Your task to perform on an android device: empty trash in the gmail app Image 0: 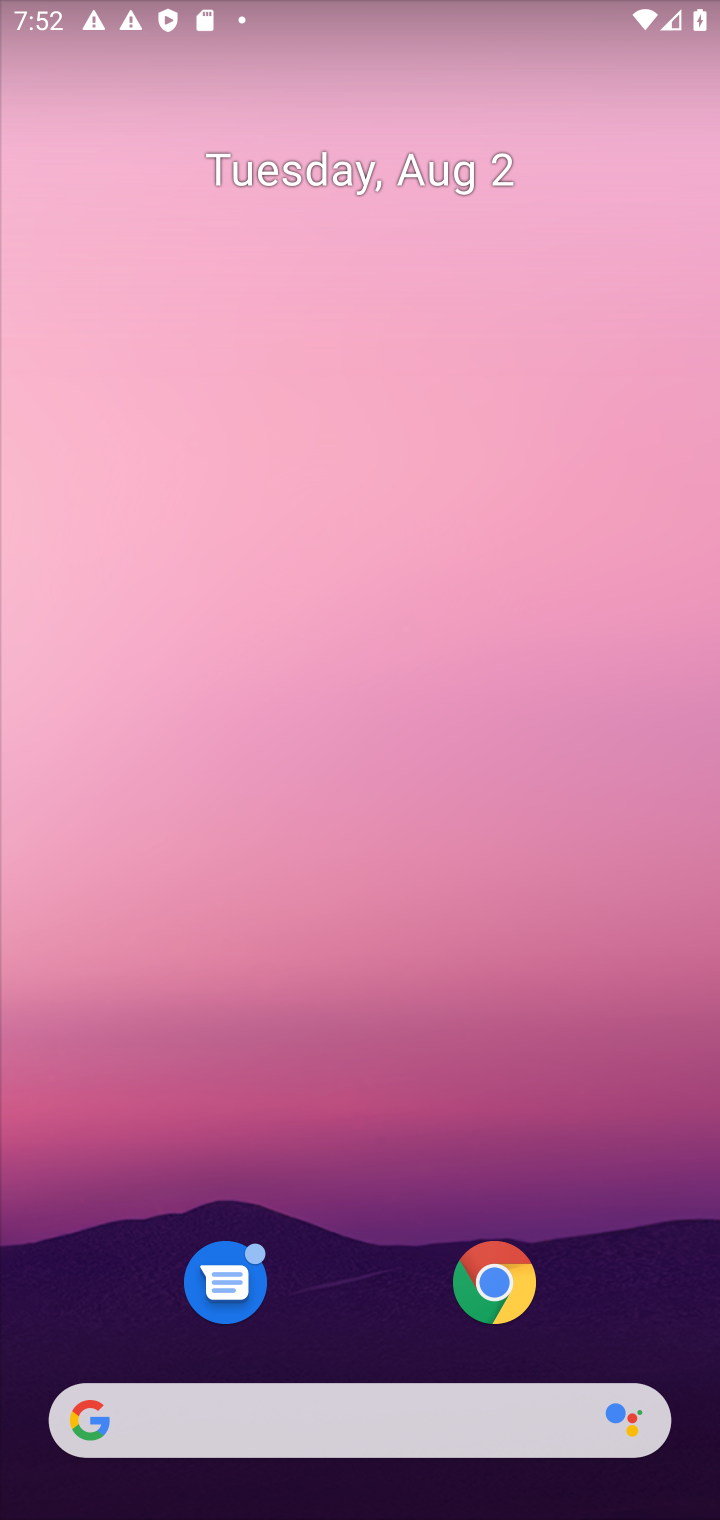
Step 0: drag from (416, 1377) to (639, 628)
Your task to perform on an android device: empty trash in the gmail app Image 1: 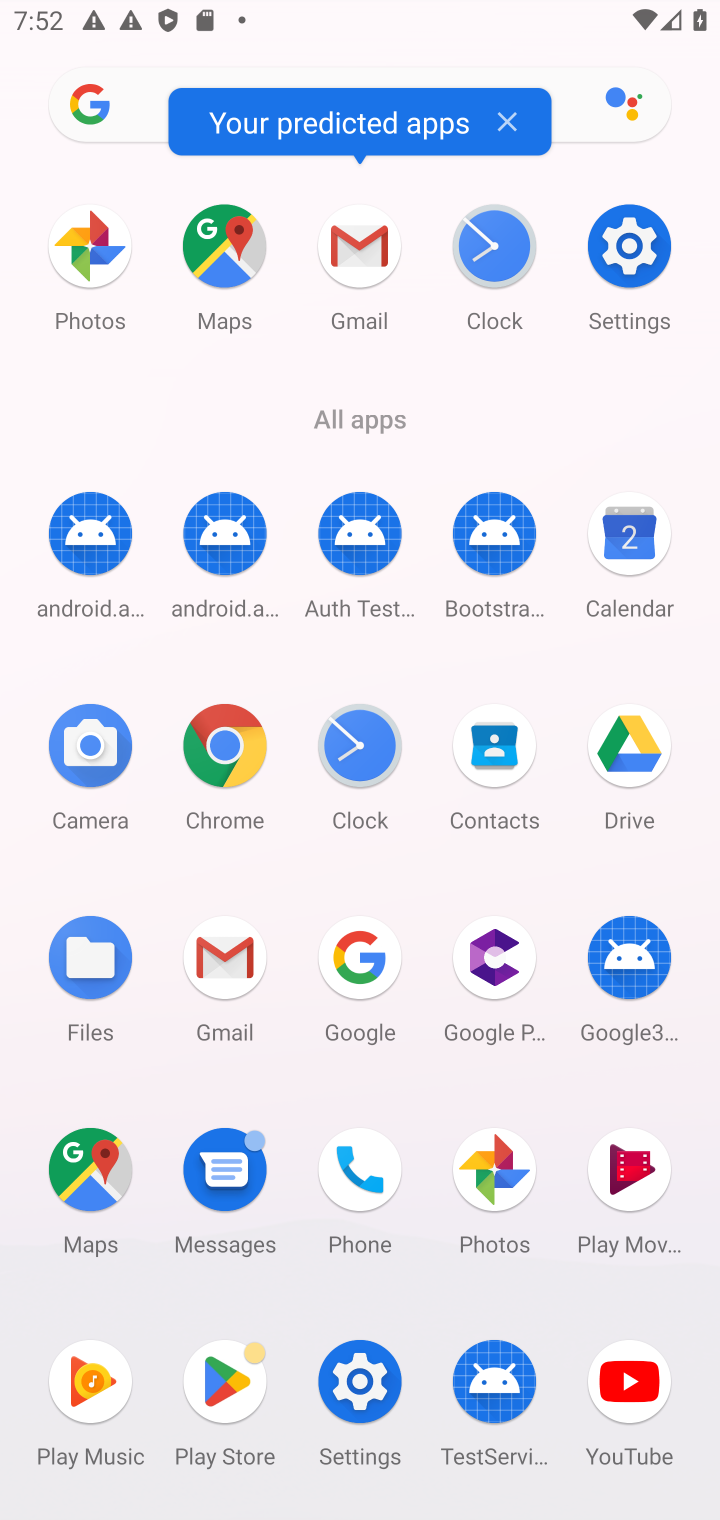
Step 1: click (208, 1010)
Your task to perform on an android device: empty trash in the gmail app Image 2: 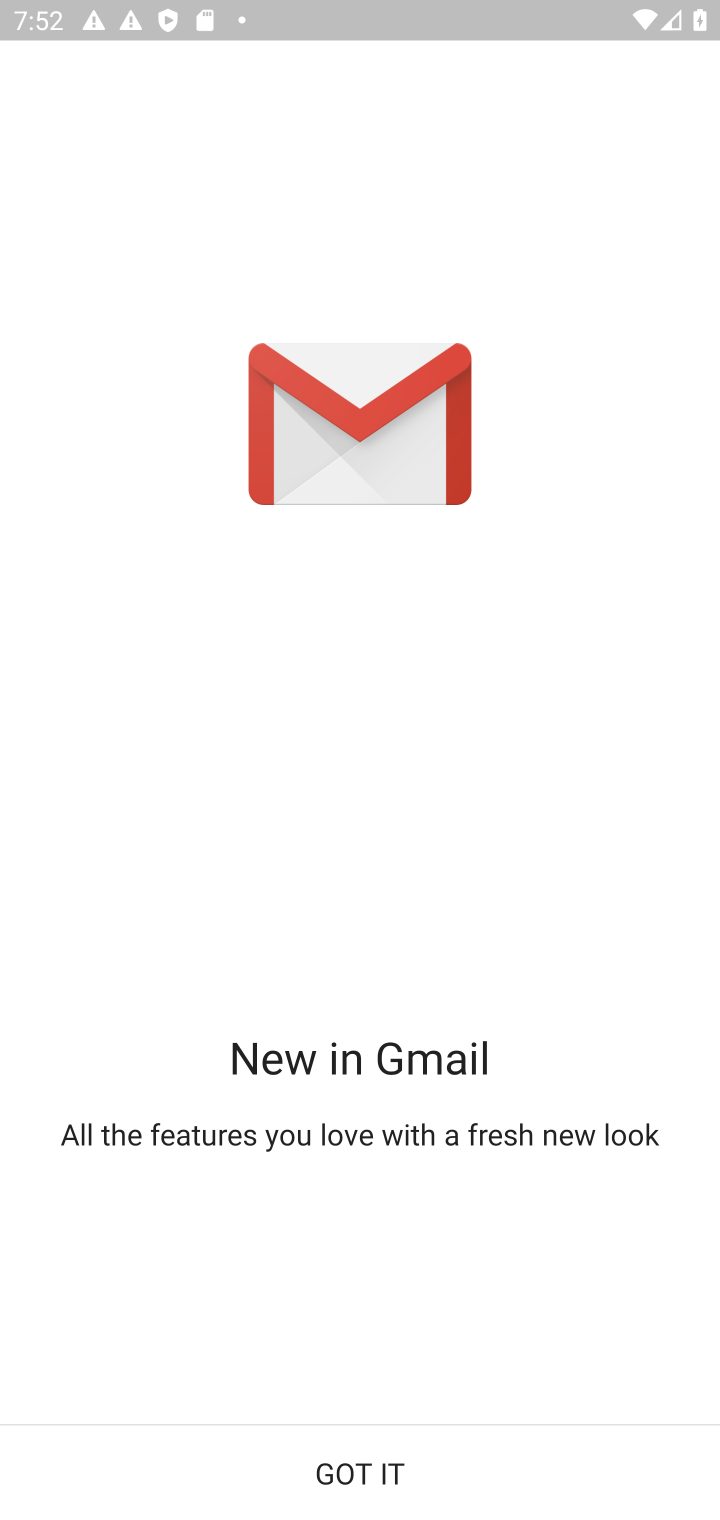
Step 2: click (577, 1497)
Your task to perform on an android device: empty trash in the gmail app Image 3: 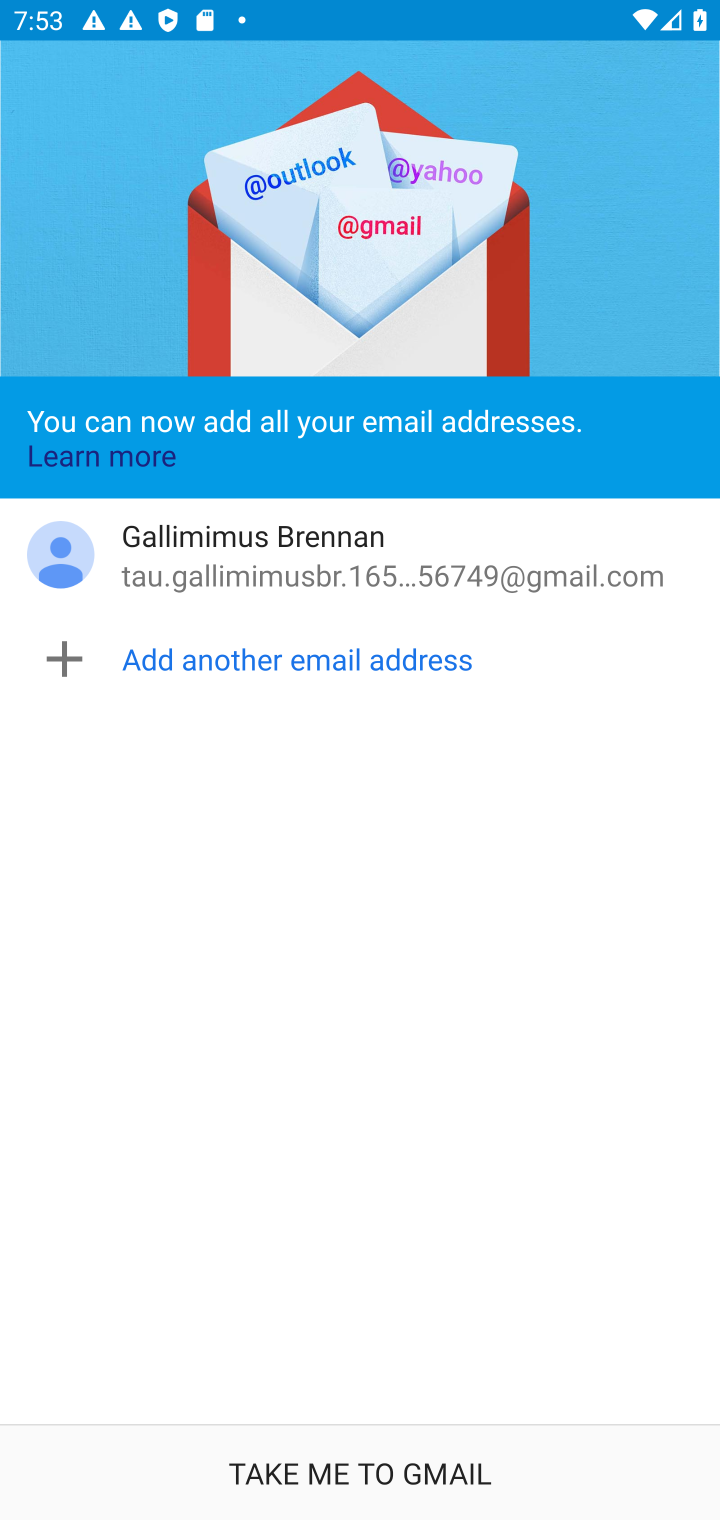
Step 3: click (573, 1493)
Your task to perform on an android device: empty trash in the gmail app Image 4: 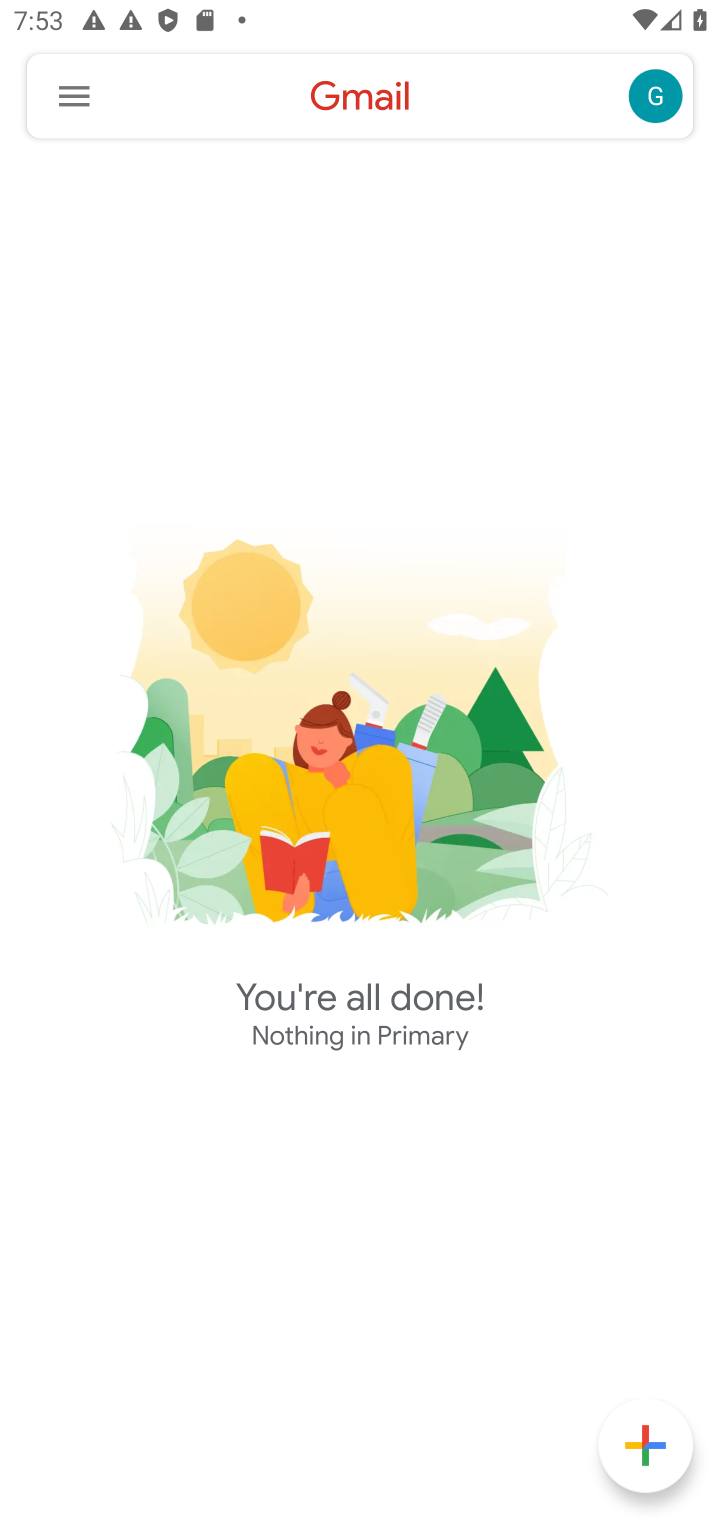
Step 4: click (89, 106)
Your task to perform on an android device: empty trash in the gmail app Image 5: 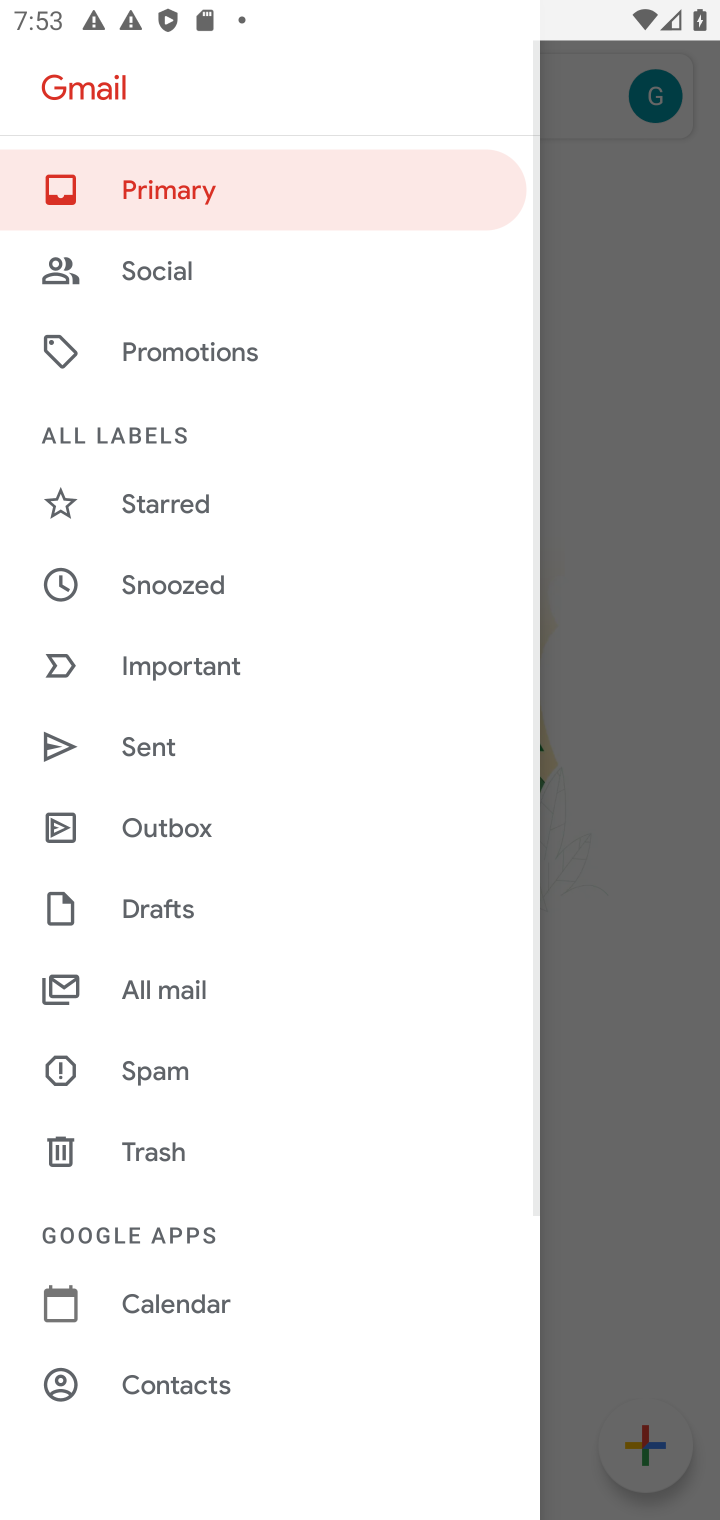
Step 5: click (164, 1146)
Your task to perform on an android device: empty trash in the gmail app Image 6: 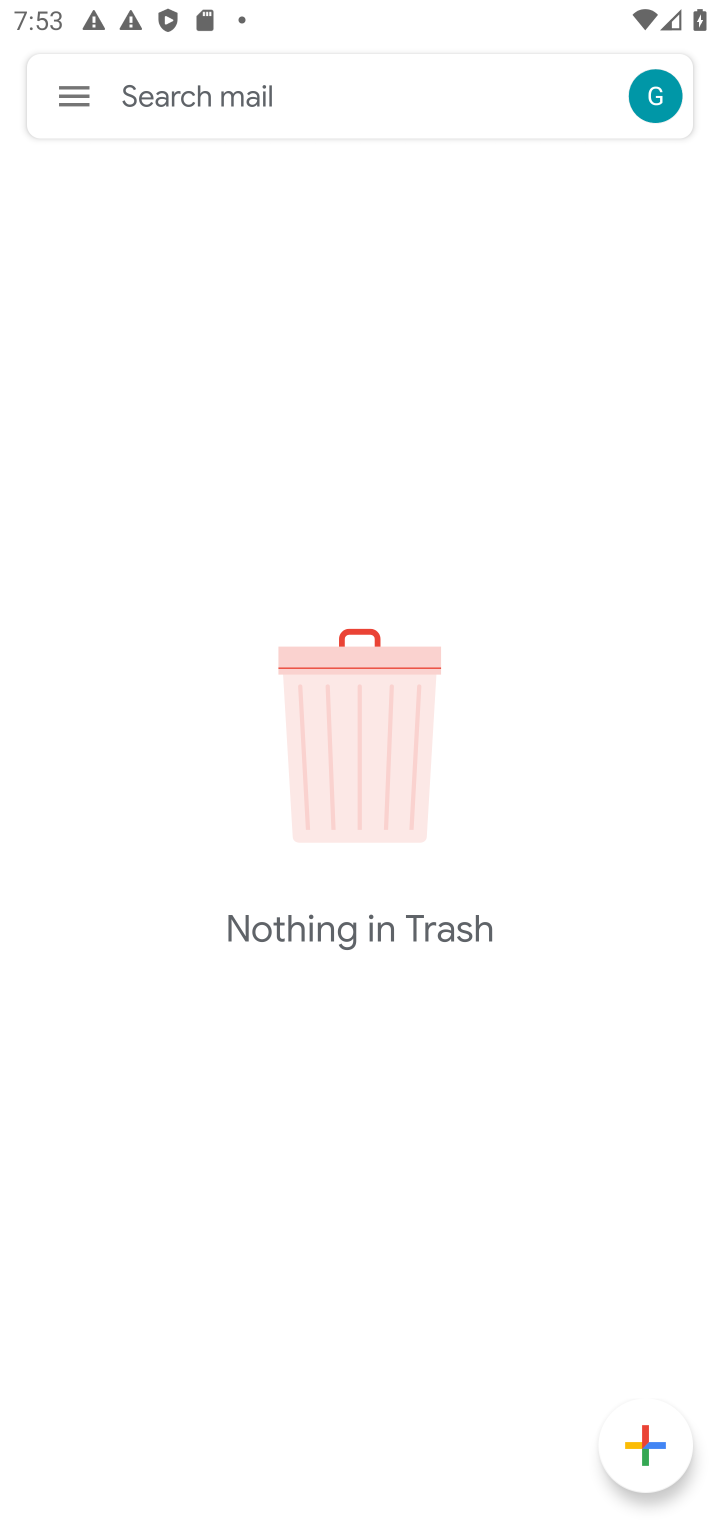
Step 6: task complete